Your task to perform on an android device: Go to sound settings Image 0: 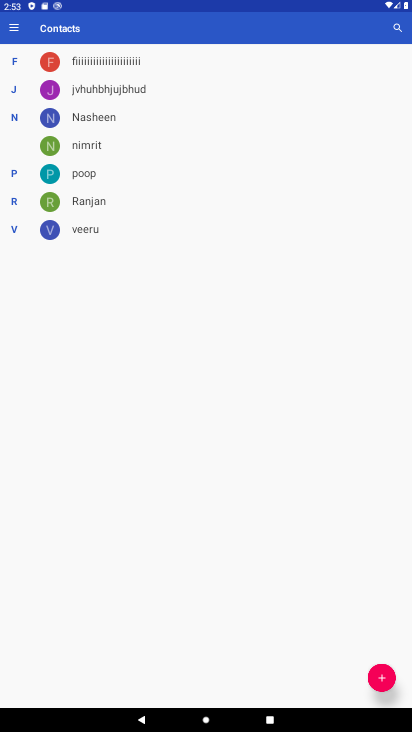
Step 0: press home button
Your task to perform on an android device: Go to sound settings Image 1: 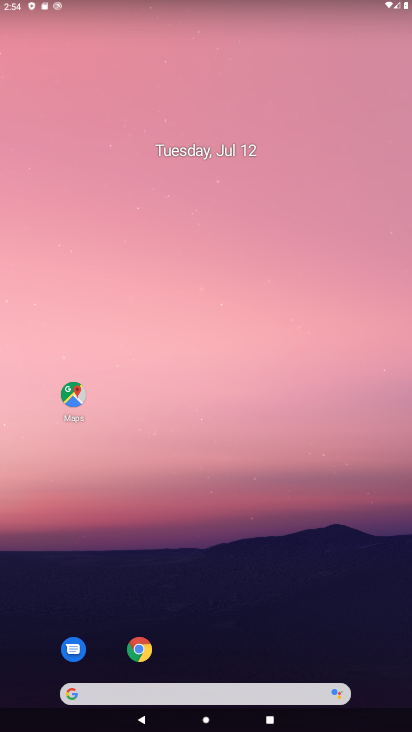
Step 1: drag from (194, 688) to (212, 80)
Your task to perform on an android device: Go to sound settings Image 2: 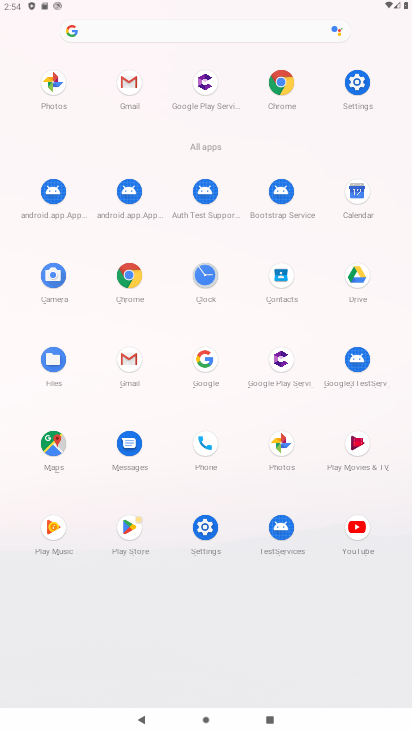
Step 2: click (206, 537)
Your task to perform on an android device: Go to sound settings Image 3: 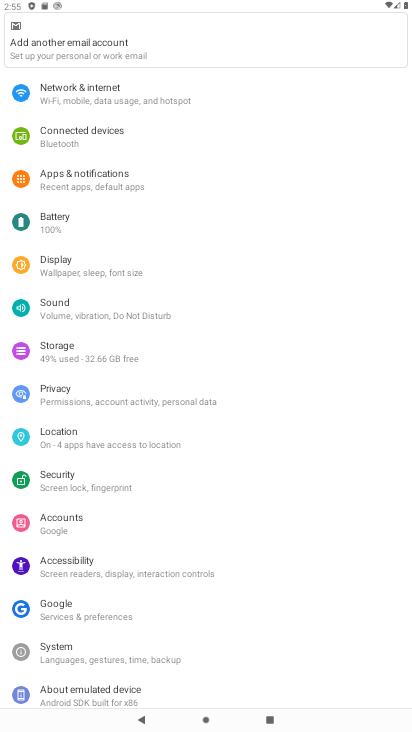
Step 3: click (82, 310)
Your task to perform on an android device: Go to sound settings Image 4: 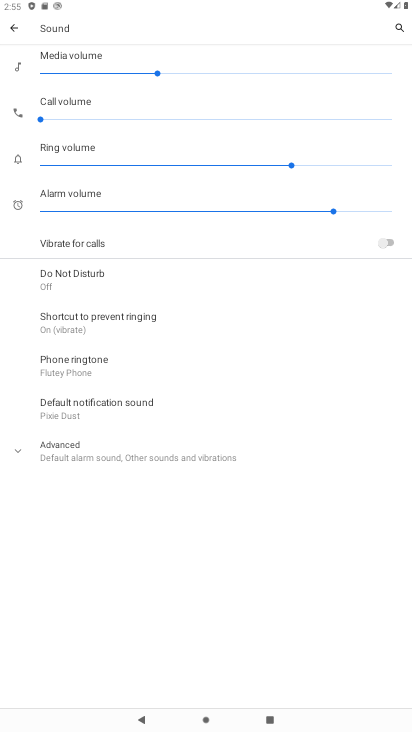
Step 4: task complete